Your task to perform on an android device: open app "Google Photos" Image 0: 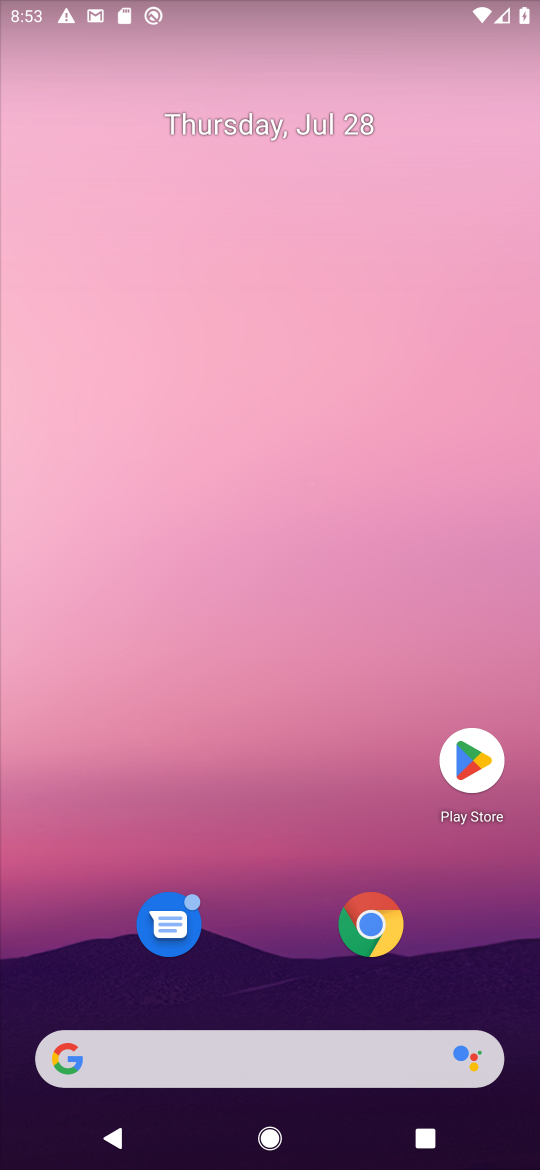
Step 0: click (475, 755)
Your task to perform on an android device: open app "Google Photos" Image 1: 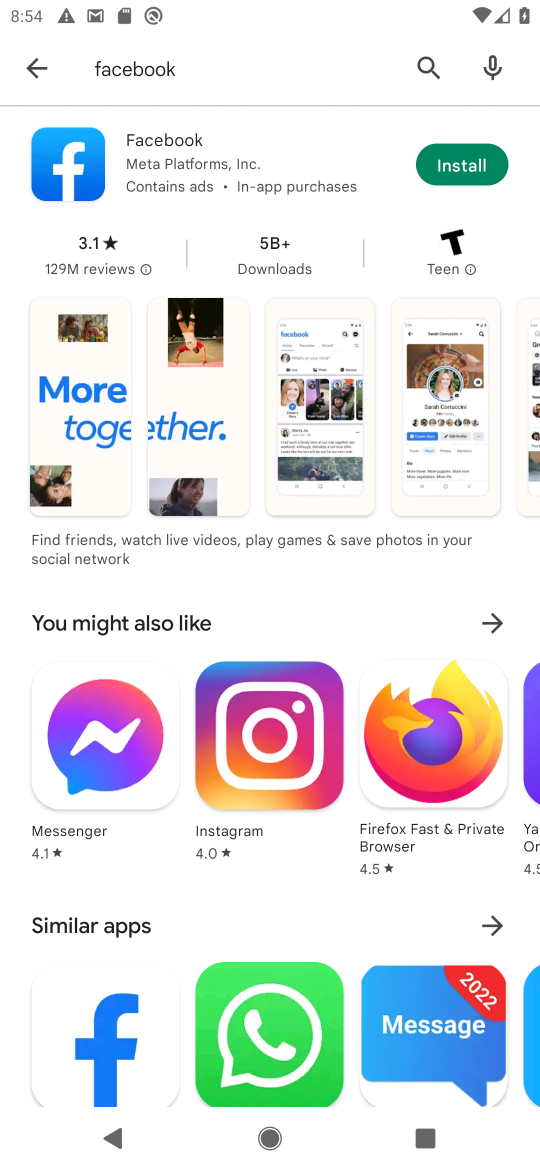
Step 1: press home button
Your task to perform on an android device: open app "Google Photos" Image 2: 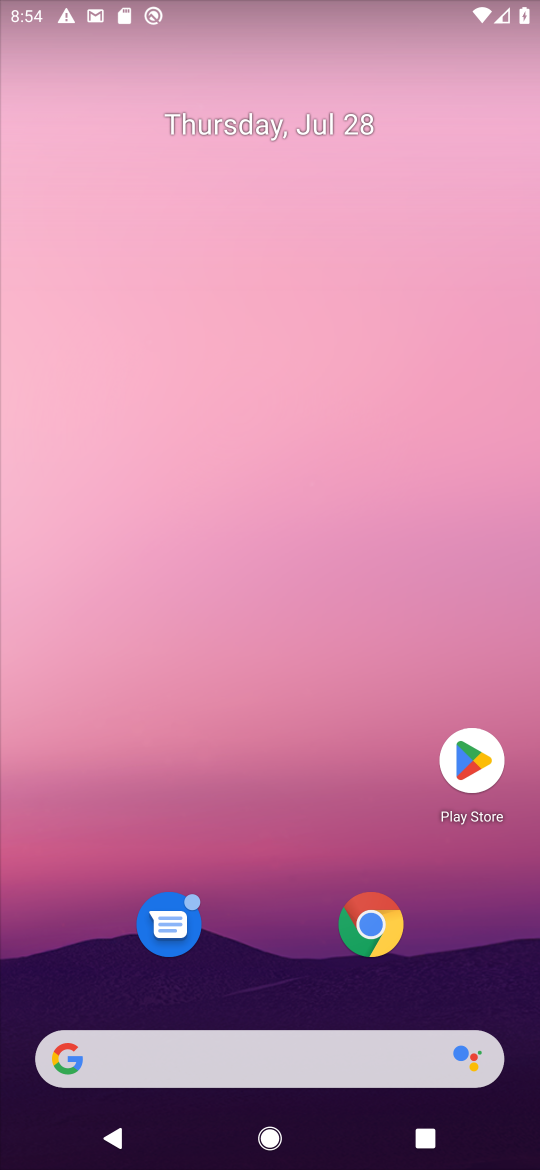
Step 2: drag from (246, 1049) to (379, 94)
Your task to perform on an android device: open app "Google Photos" Image 3: 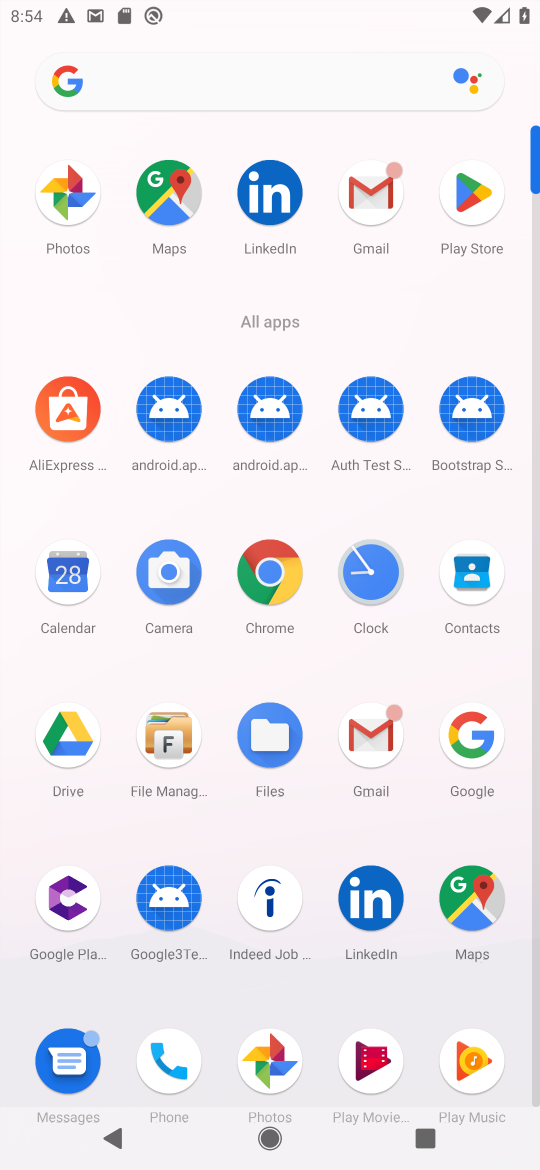
Step 3: click (276, 1050)
Your task to perform on an android device: open app "Google Photos" Image 4: 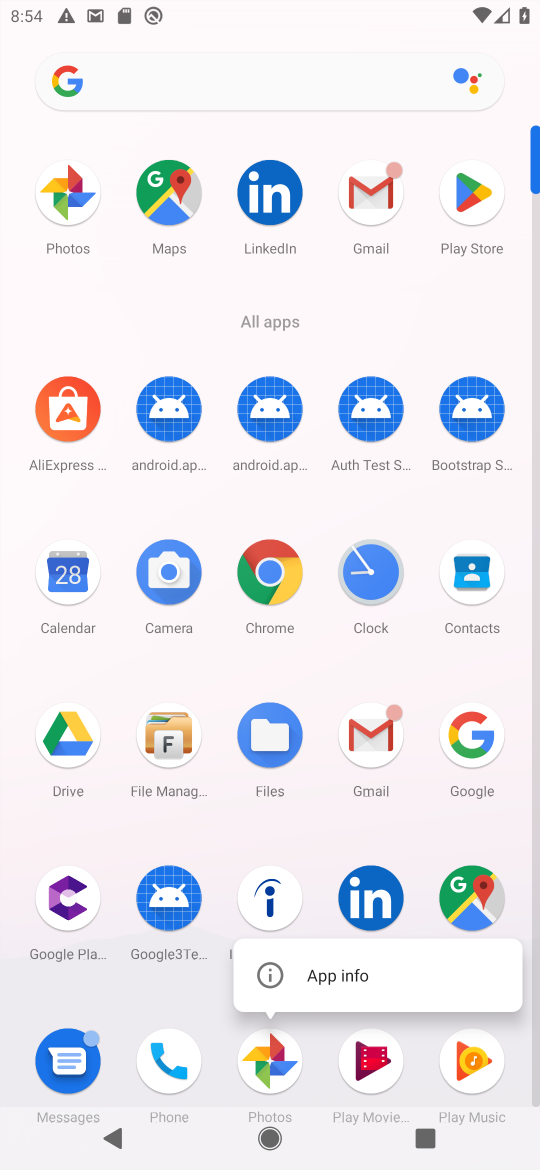
Step 4: click (275, 1058)
Your task to perform on an android device: open app "Google Photos" Image 5: 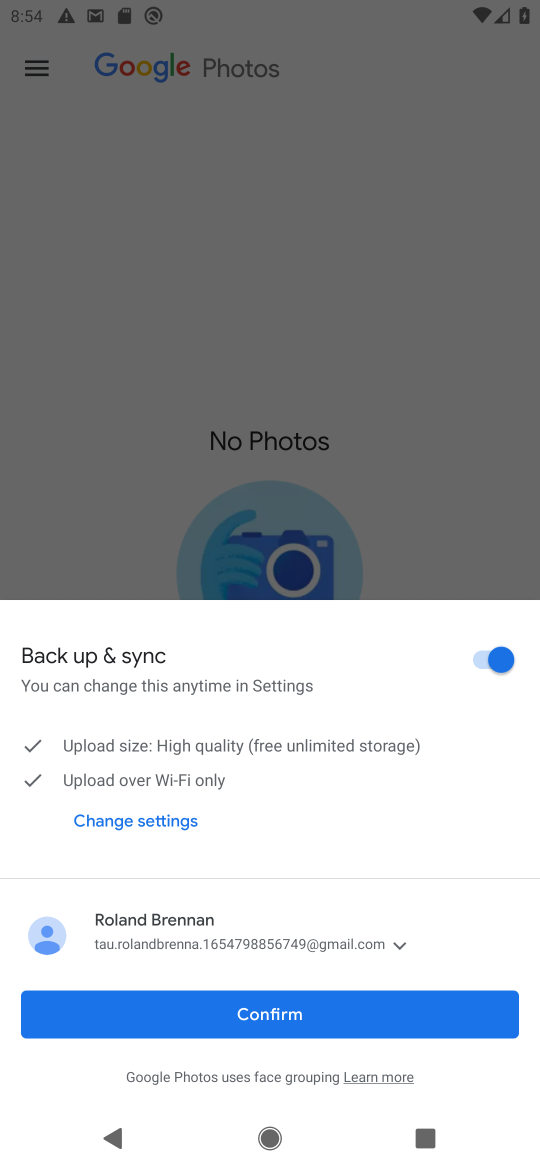
Step 5: click (263, 1016)
Your task to perform on an android device: open app "Google Photos" Image 6: 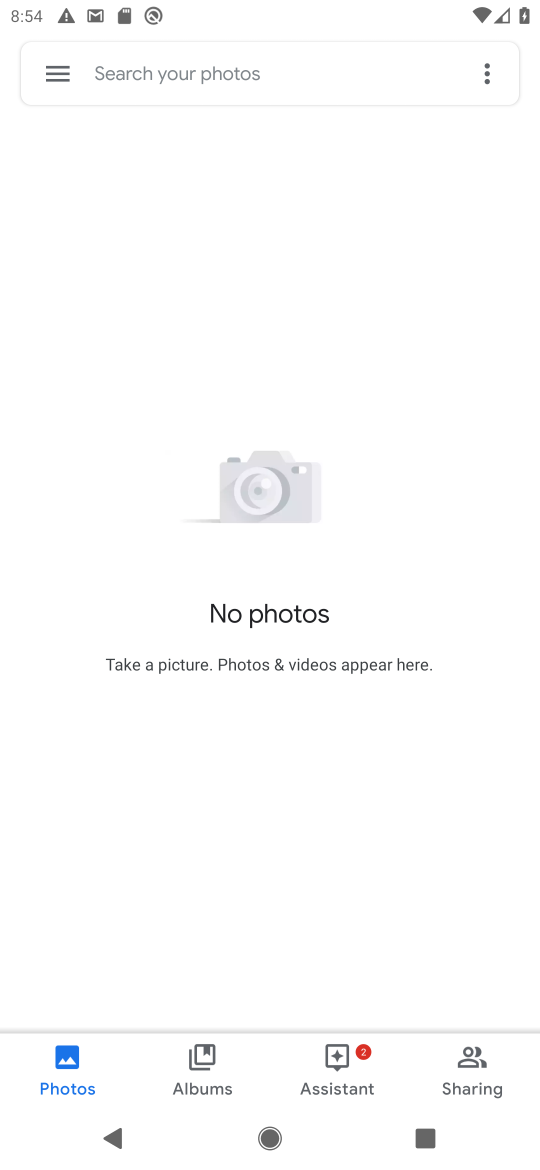
Step 6: task complete